Your task to perform on an android device: see tabs open on other devices in the chrome app Image 0: 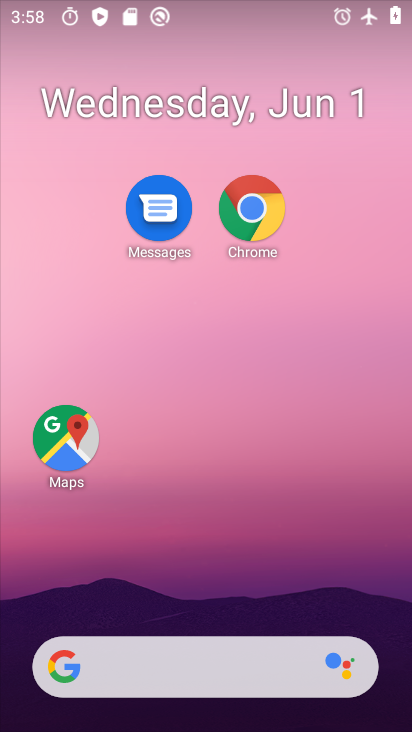
Step 0: click (276, 210)
Your task to perform on an android device: see tabs open on other devices in the chrome app Image 1: 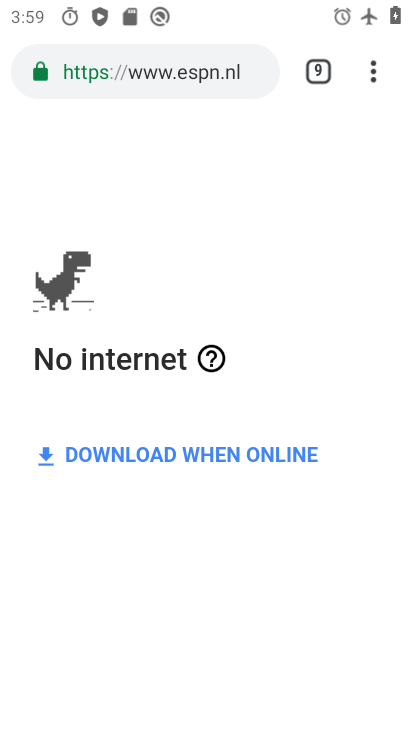
Step 1: task complete